Your task to perform on an android device: check android version Image 0: 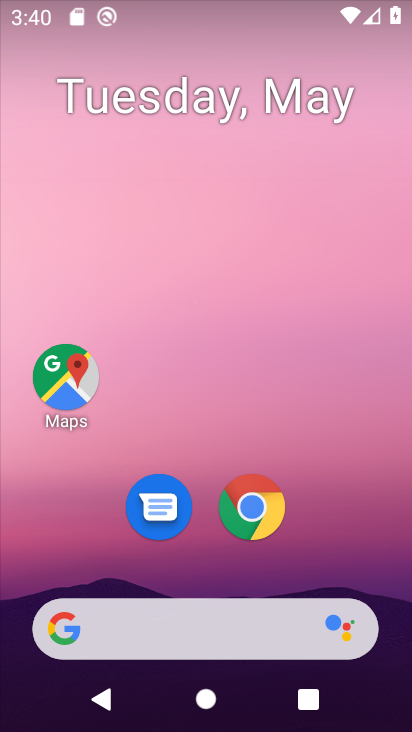
Step 0: drag from (206, 572) to (302, 164)
Your task to perform on an android device: check android version Image 1: 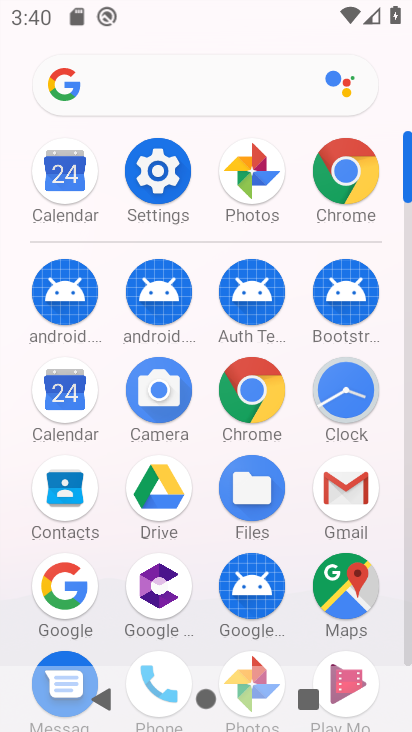
Step 1: click (147, 175)
Your task to perform on an android device: check android version Image 2: 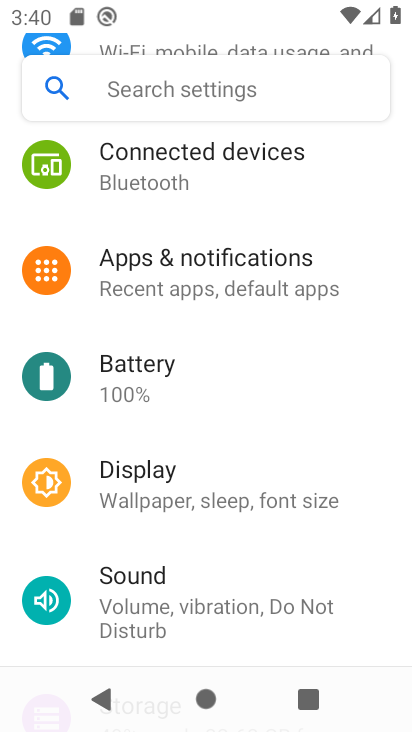
Step 2: drag from (231, 340) to (257, 246)
Your task to perform on an android device: check android version Image 3: 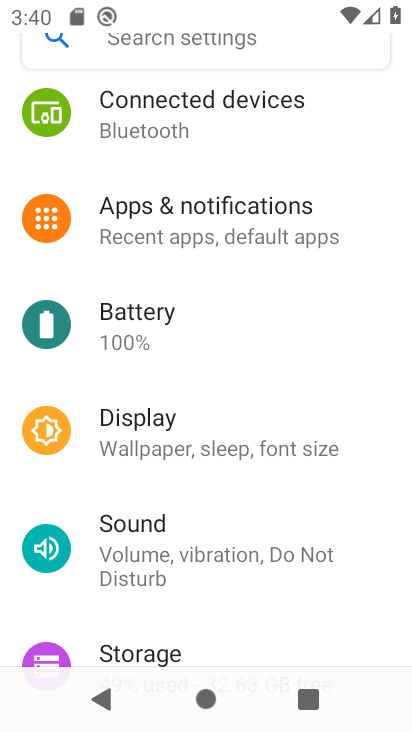
Step 3: drag from (240, 545) to (301, 181)
Your task to perform on an android device: check android version Image 4: 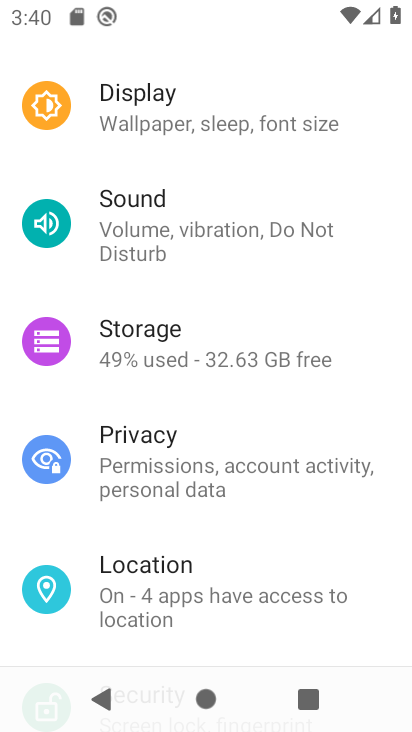
Step 4: drag from (246, 570) to (331, 207)
Your task to perform on an android device: check android version Image 5: 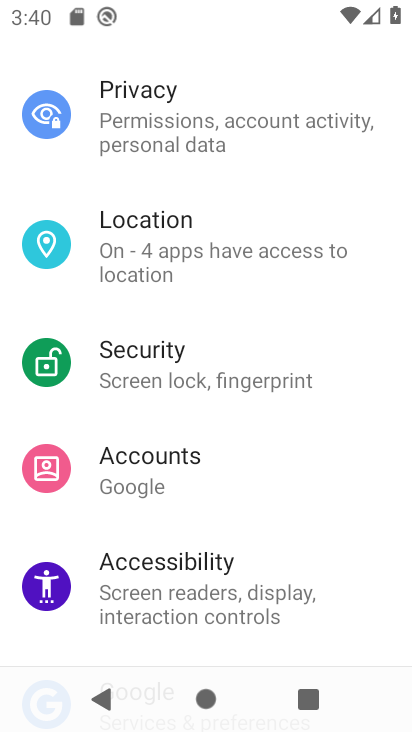
Step 5: drag from (302, 514) to (362, 173)
Your task to perform on an android device: check android version Image 6: 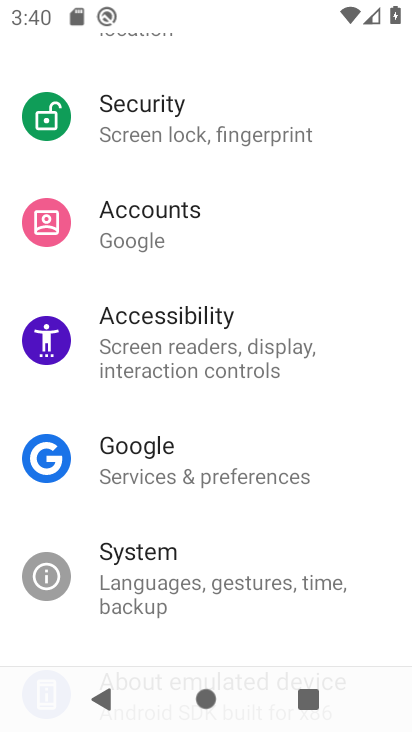
Step 6: drag from (258, 550) to (342, 154)
Your task to perform on an android device: check android version Image 7: 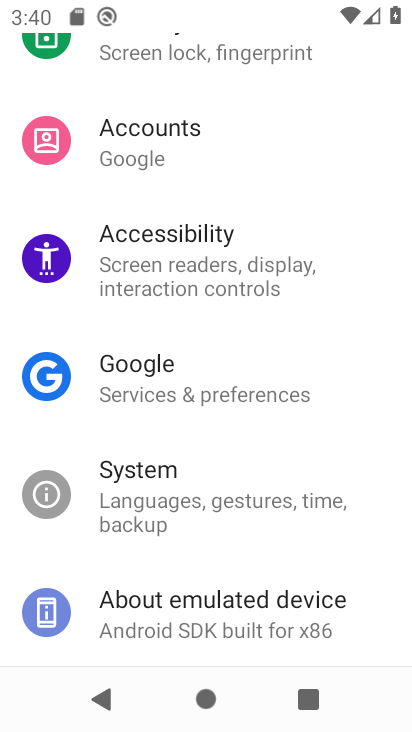
Step 7: click (247, 610)
Your task to perform on an android device: check android version Image 8: 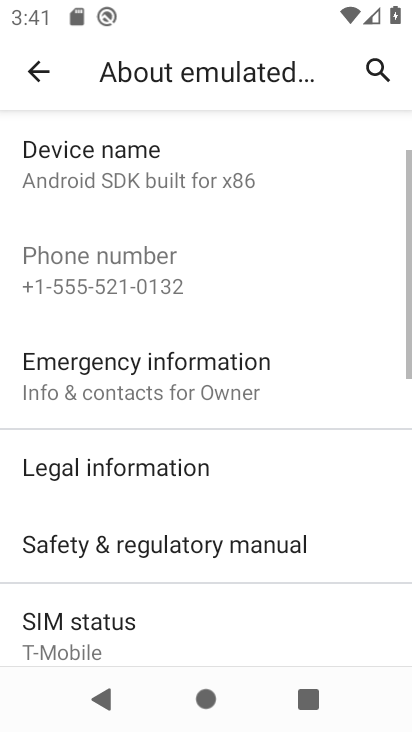
Step 8: drag from (148, 634) to (169, 128)
Your task to perform on an android device: check android version Image 9: 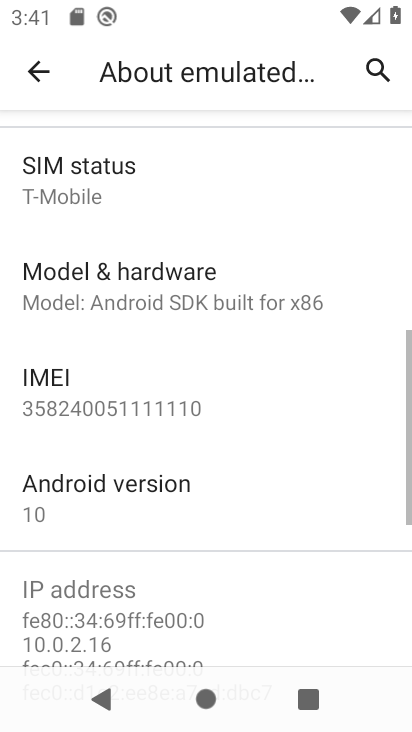
Step 9: click (114, 489)
Your task to perform on an android device: check android version Image 10: 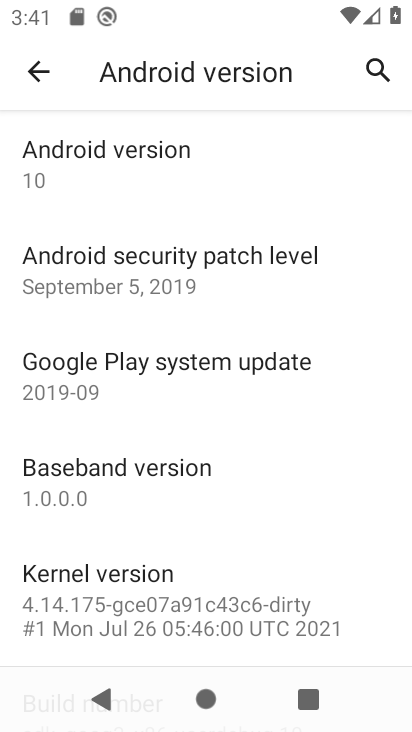
Step 10: task complete